Your task to perform on an android device: turn off picture-in-picture Image 0: 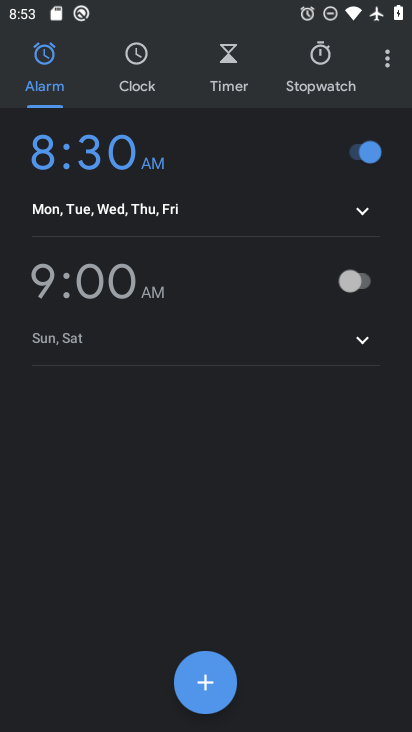
Step 0: press home button
Your task to perform on an android device: turn off picture-in-picture Image 1: 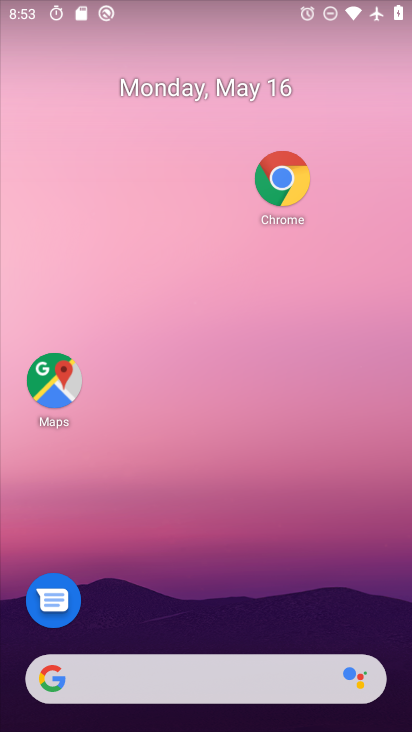
Step 1: click (293, 192)
Your task to perform on an android device: turn off picture-in-picture Image 2: 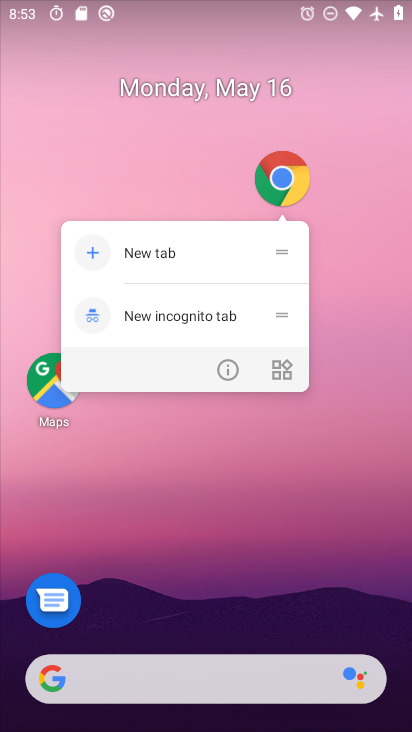
Step 2: click (224, 369)
Your task to perform on an android device: turn off picture-in-picture Image 3: 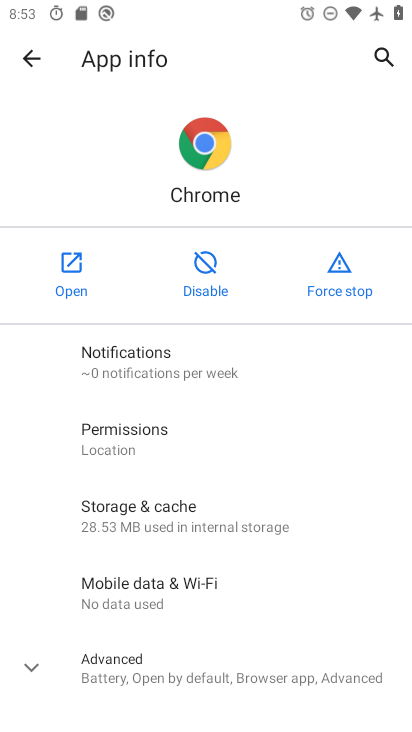
Step 3: drag from (155, 629) to (289, 320)
Your task to perform on an android device: turn off picture-in-picture Image 4: 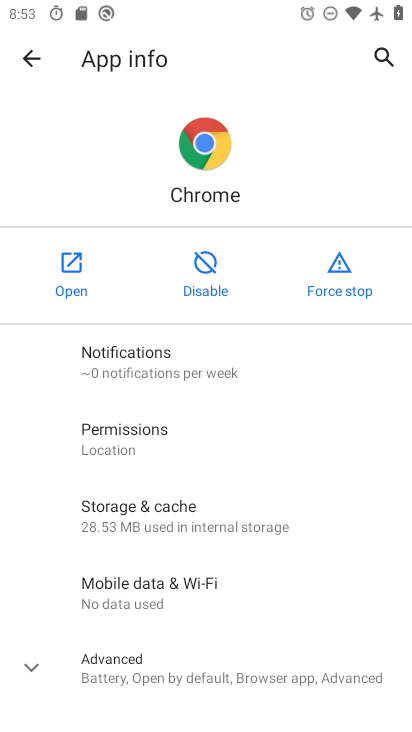
Step 4: click (135, 662)
Your task to perform on an android device: turn off picture-in-picture Image 5: 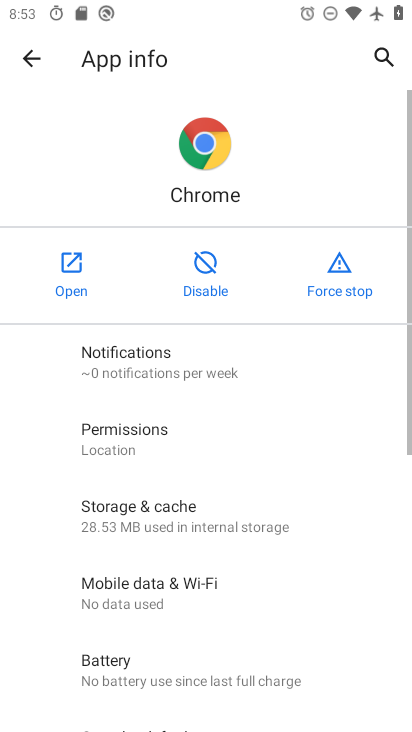
Step 5: drag from (258, 614) to (377, 22)
Your task to perform on an android device: turn off picture-in-picture Image 6: 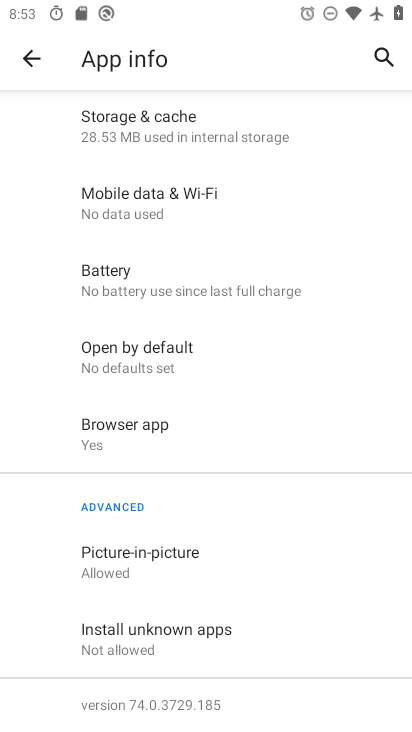
Step 6: click (182, 568)
Your task to perform on an android device: turn off picture-in-picture Image 7: 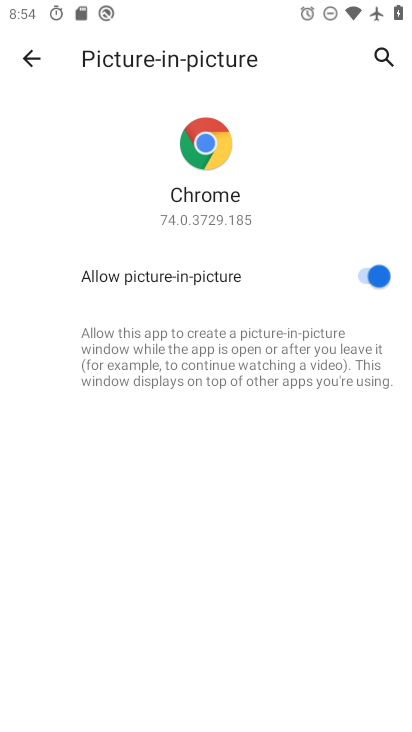
Step 7: click (363, 273)
Your task to perform on an android device: turn off picture-in-picture Image 8: 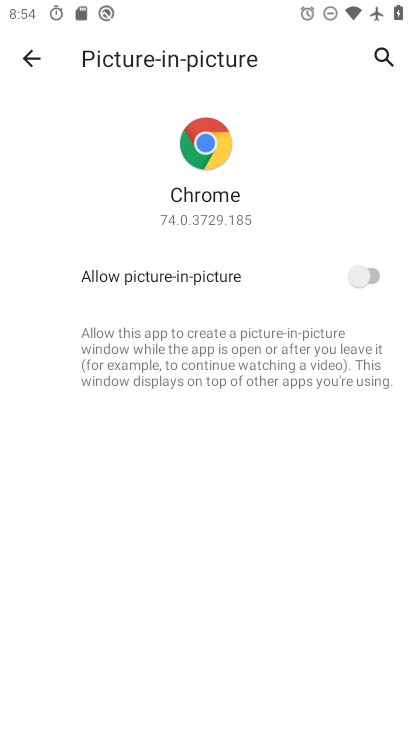
Step 8: task complete